Your task to perform on an android device: change timer sound Image 0: 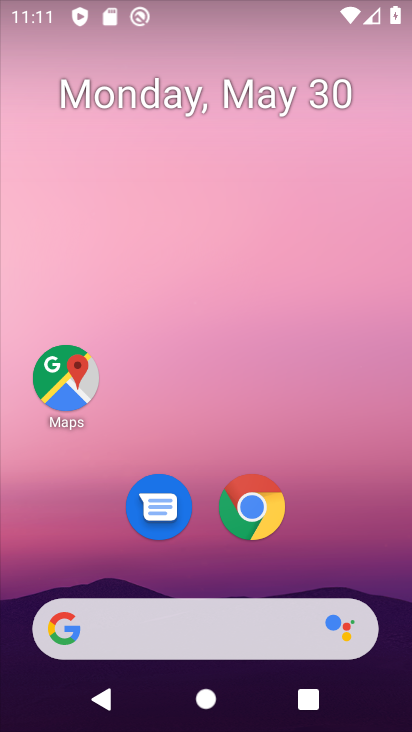
Step 0: drag from (329, 575) to (362, 53)
Your task to perform on an android device: change timer sound Image 1: 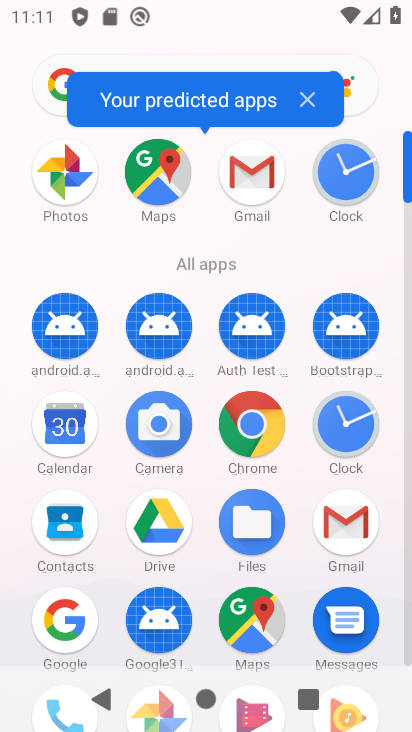
Step 1: drag from (343, 438) to (143, 172)
Your task to perform on an android device: change timer sound Image 2: 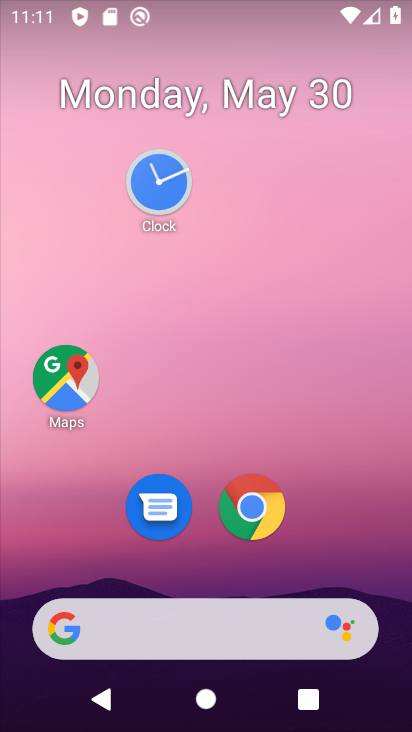
Step 2: click (164, 185)
Your task to perform on an android device: change timer sound Image 3: 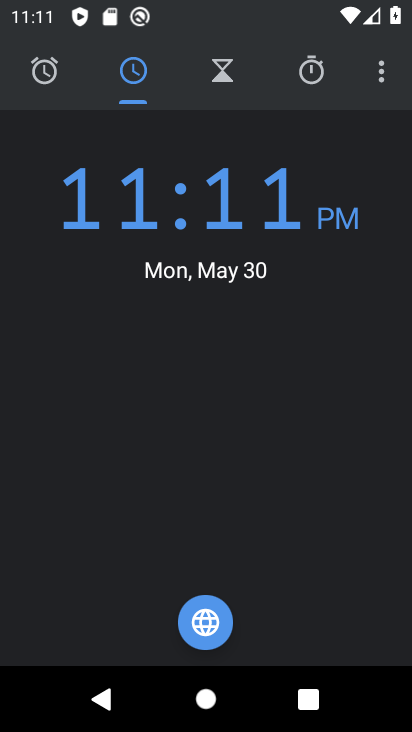
Step 3: click (383, 68)
Your task to perform on an android device: change timer sound Image 4: 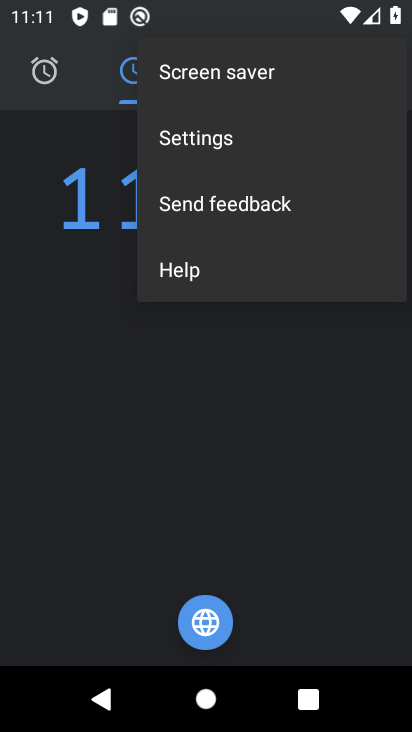
Step 4: click (227, 146)
Your task to perform on an android device: change timer sound Image 5: 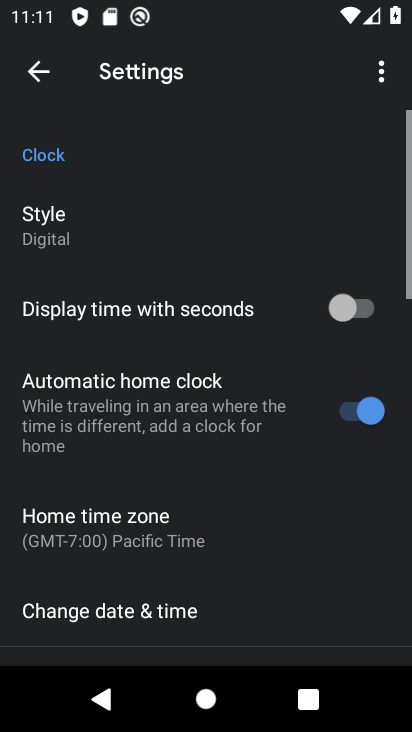
Step 5: drag from (117, 500) to (121, 184)
Your task to perform on an android device: change timer sound Image 6: 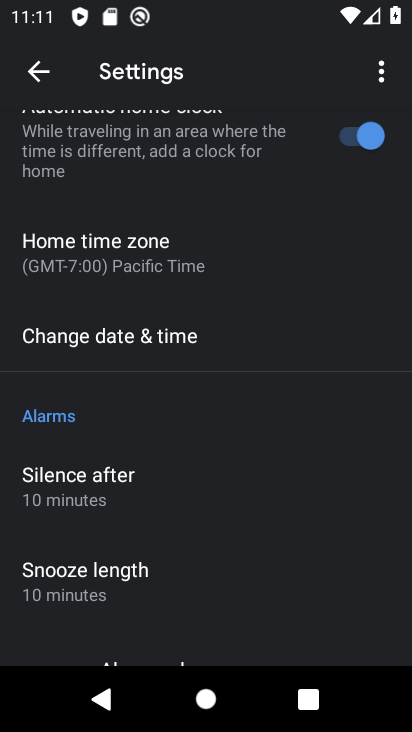
Step 6: drag from (90, 446) to (94, 169)
Your task to perform on an android device: change timer sound Image 7: 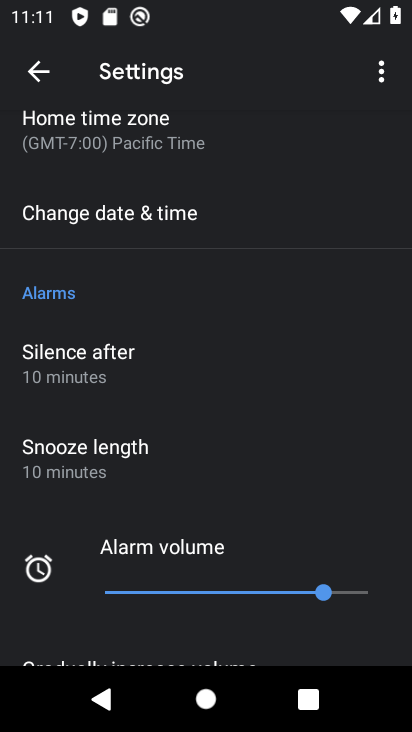
Step 7: drag from (93, 486) to (126, 149)
Your task to perform on an android device: change timer sound Image 8: 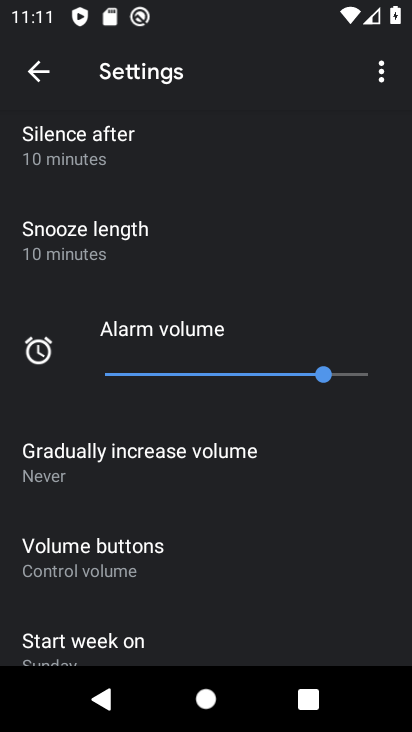
Step 8: drag from (125, 523) to (166, 122)
Your task to perform on an android device: change timer sound Image 9: 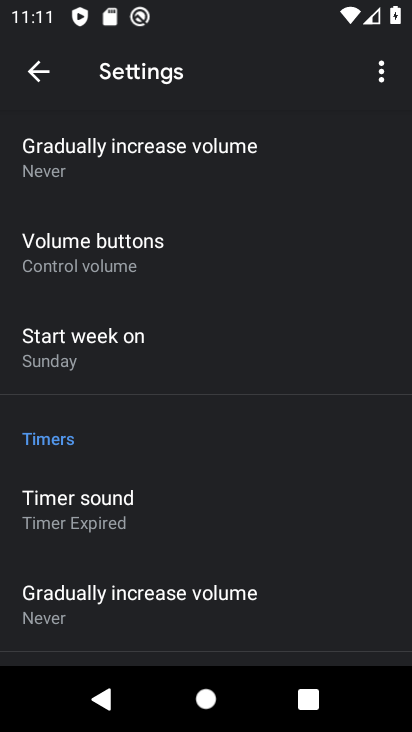
Step 9: click (115, 545)
Your task to perform on an android device: change timer sound Image 10: 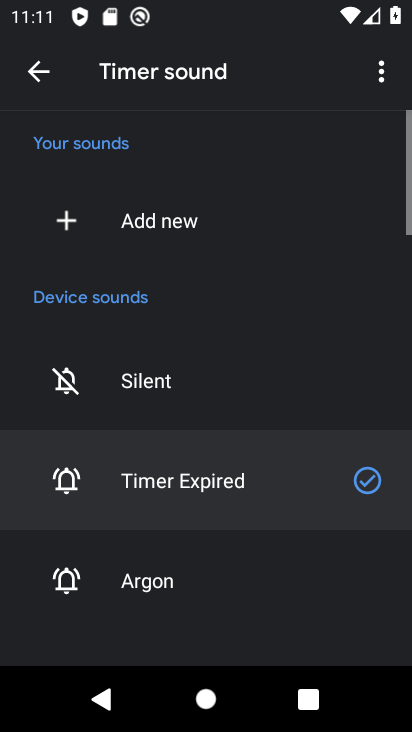
Step 10: click (122, 577)
Your task to perform on an android device: change timer sound Image 11: 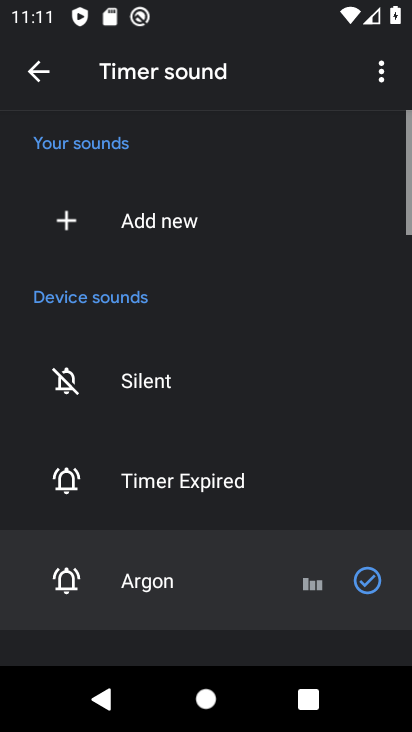
Step 11: task complete